Your task to perform on an android device: What's on my calendar today? Image 0: 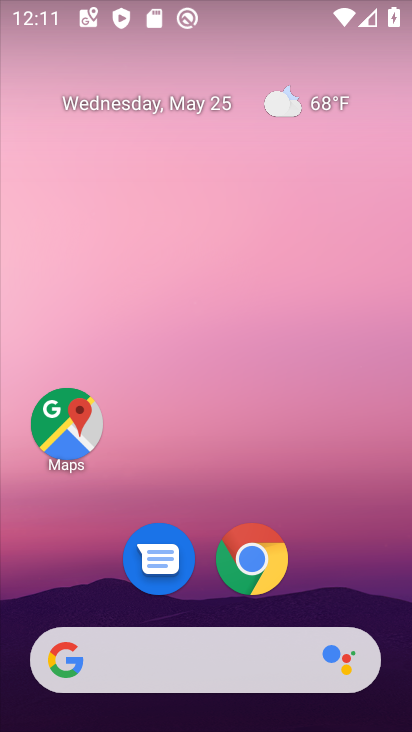
Step 0: drag from (397, 625) to (308, 67)
Your task to perform on an android device: What's on my calendar today? Image 1: 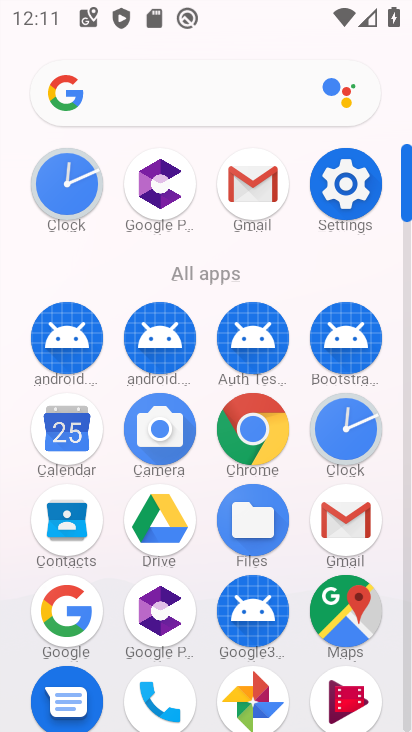
Step 1: click (410, 703)
Your task to perform on an android device: What's on my calendar today? Image 2: 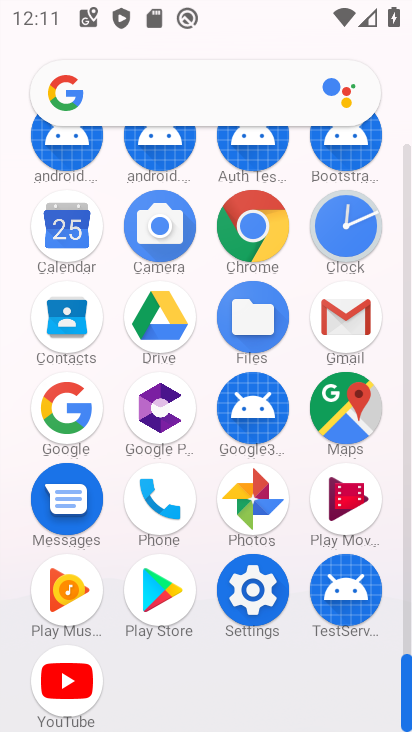
Step 2: click (66, 229)
Your task to perform on an android device: What's on my calendar today? Image 3: 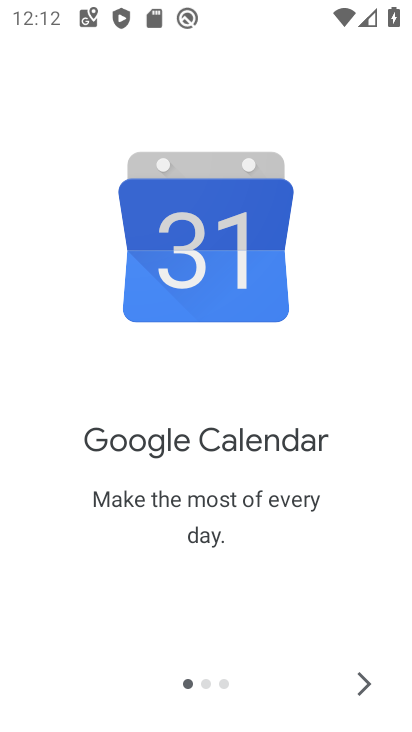
Step 3: click (361, 687)
Your task to perform on an android device: What's on my calendar today? Image 4: 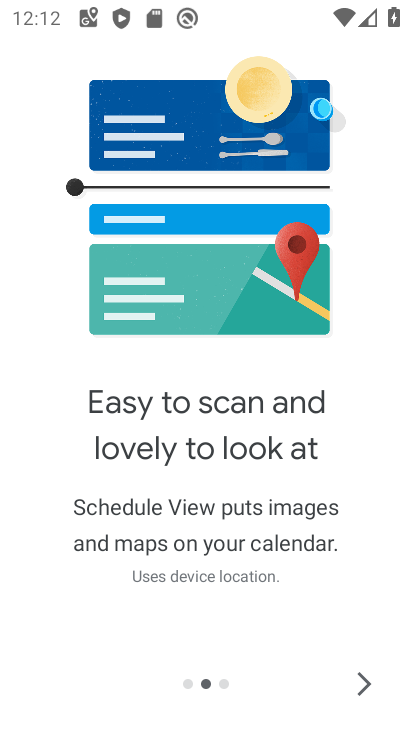
Step 4: click (367, 685)
Your task to perform on an android device: What's on my calendar today? Image 5: 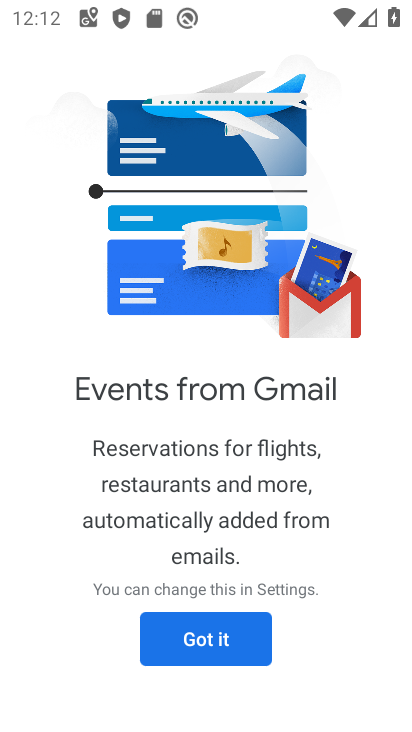
Step 5: click (210, 641)
Your task to perform on an android device: What's on my calendar today? Image 6: 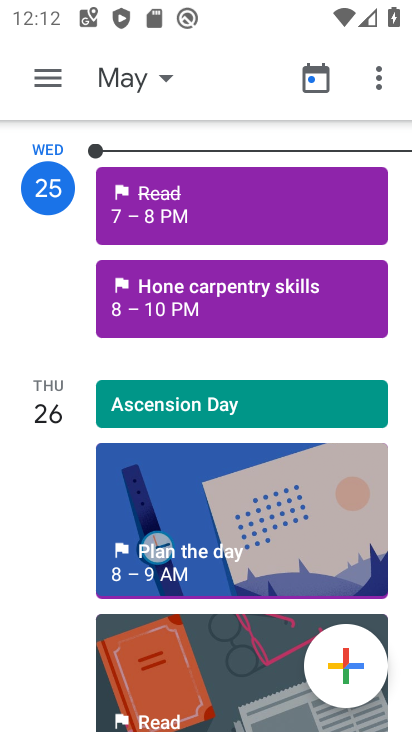
Step 6: click (45, 90)
Your task to perform on an android device: What's on my calendar today? Image 7: 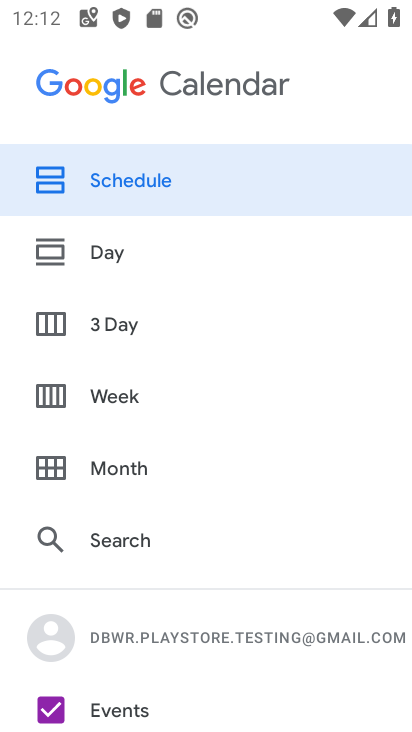
Step 7: click (97, 256)
Your task to perform on an android device: What's on my calendar today? Image 8: 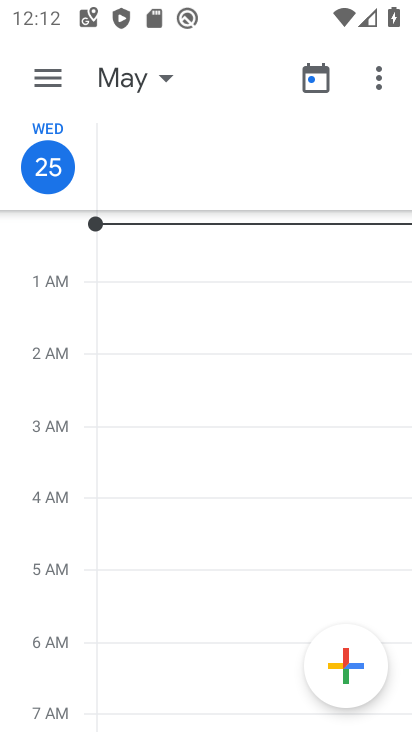
Step 8: click (167, 81)
Your task to perform on an android device: What's on my calendar today? Image 9: 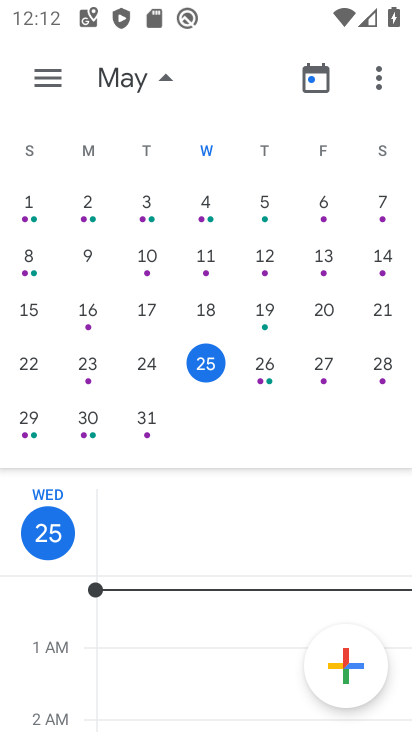
Step 9: click (210, 358)
Your task to perform on an android device: What's on my calendar today? Image 10: 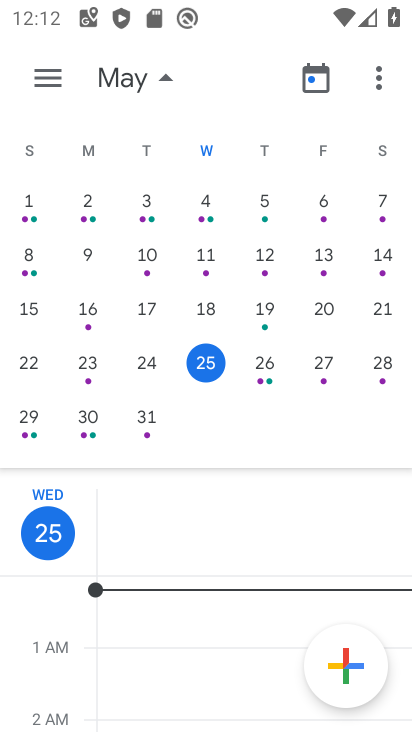
Step 10: task complete